Your task to perform on an android device: Turn on the flashlight Image 0: 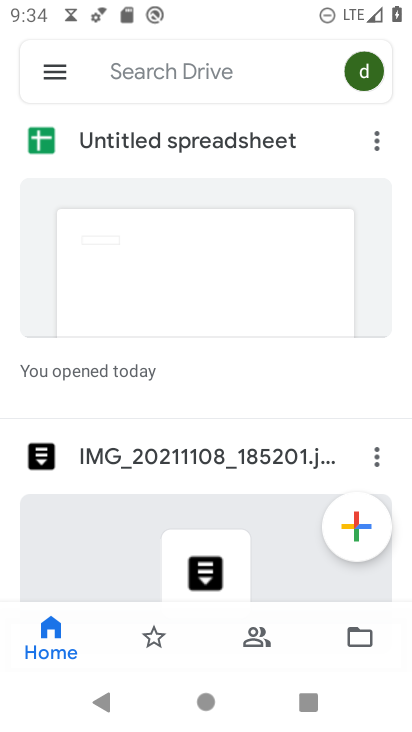
Step 0: press home button
Your task to perform on an android device: Turn on the flashlight Image 1: 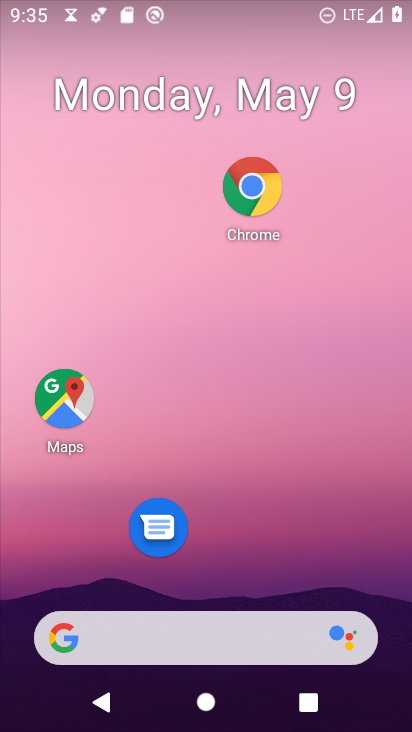
Step 1: drag from (216, 573) to (192, 48)
Your task to perform on an android device: Turn on the flashlight Image 2: 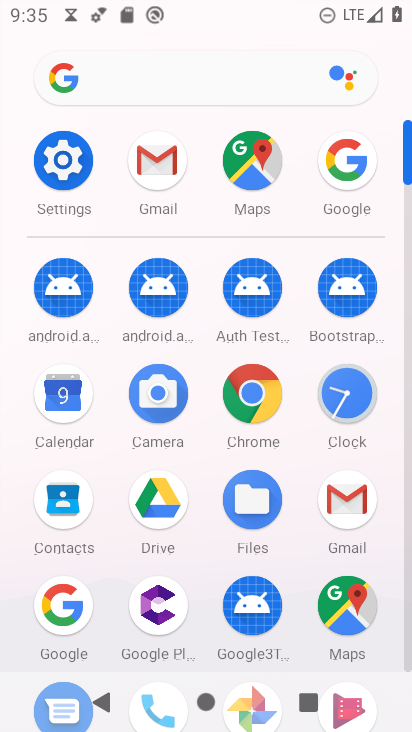
Step 2: click (61, 152)
Your task to perform on an android device: Turn on the flashlight Image 3: 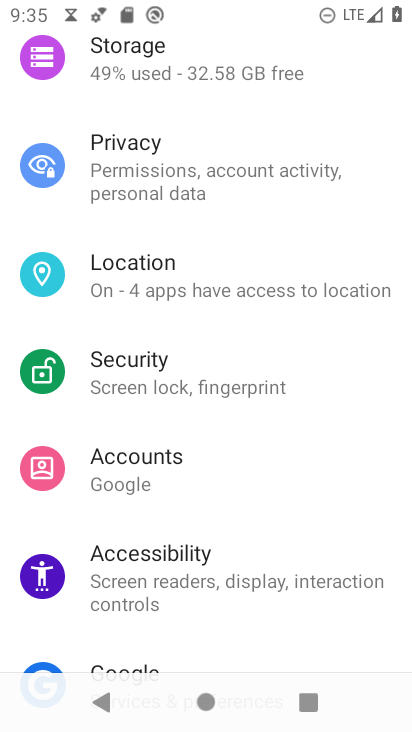
Step 3: drag from (183, 101) to (229, 677)
Your task to perform on an android device: Turn on the flashlight Image 4: 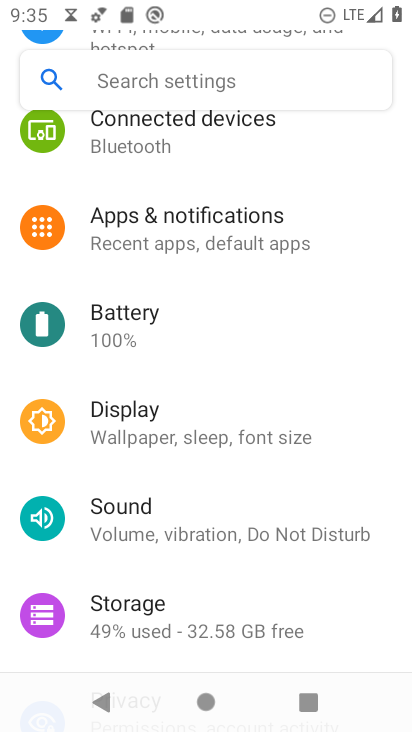
Step 4: click (171, 71)
Your task to perform on an android device: Turn on the flashlight Image 5: 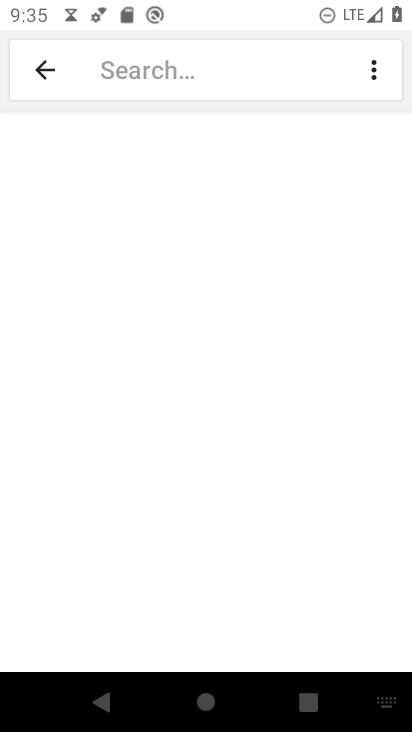
Step 5: type "flashlight"
Your task to perform on an android device: Turn on the flashlight Image 6: 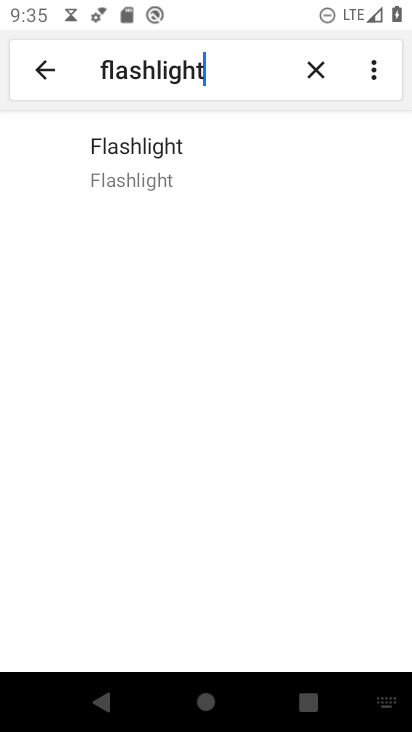
Step 6: click (203, 170)
Your task to perform on an android device: Turn on the flashlight Image 7: 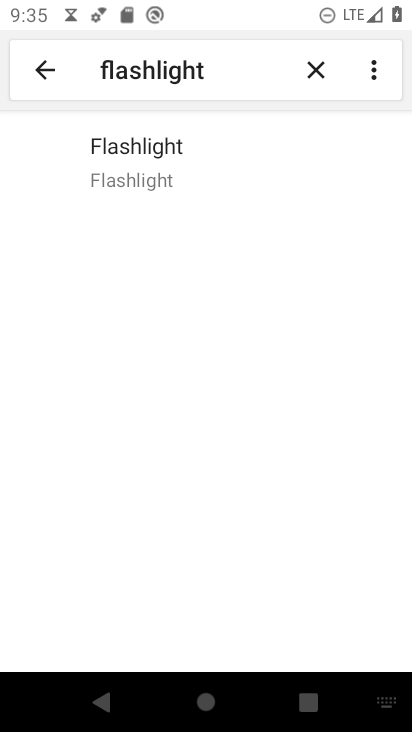
Step 7: task complete